Your task to perform on an android device: Open settings on Google Maps Image 0: 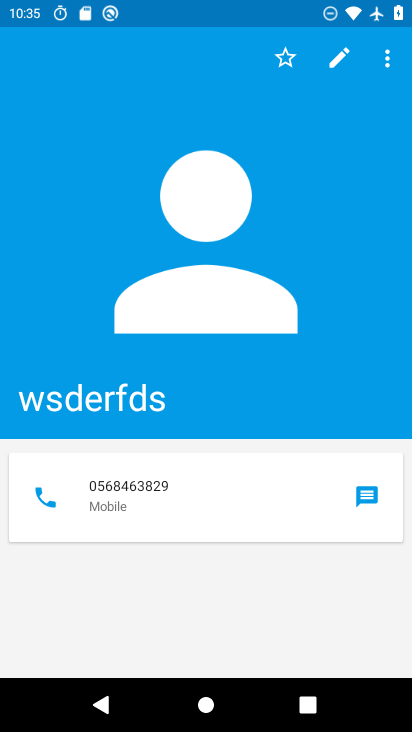
Step 0: press home button
Your task to perform on an android device: Open settings on Google Maps Image 1: 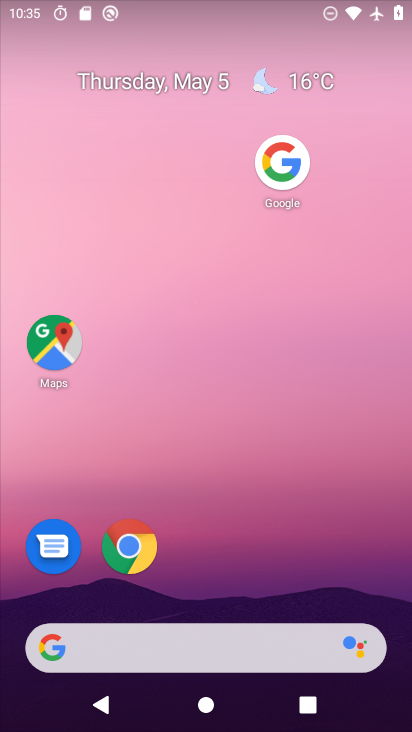
Step 1: drag from (154, 651) to (298, 61)
Your task to perform on an android device: Open settings on Google Maps Image 2: 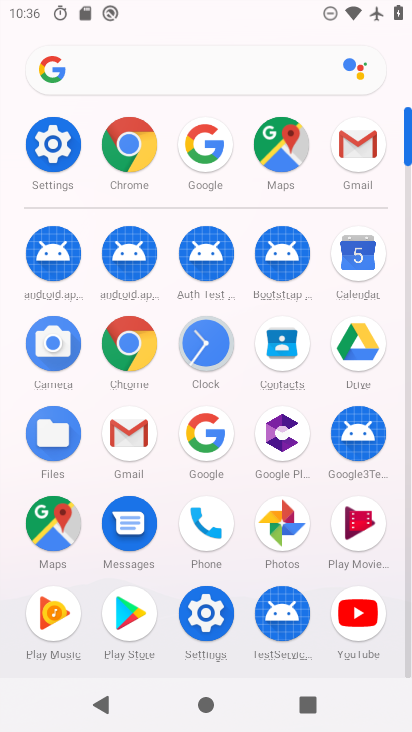
Step 2: click (56, 524)
Your task to perform on an android device: Open settings on Google Maps Image 3: 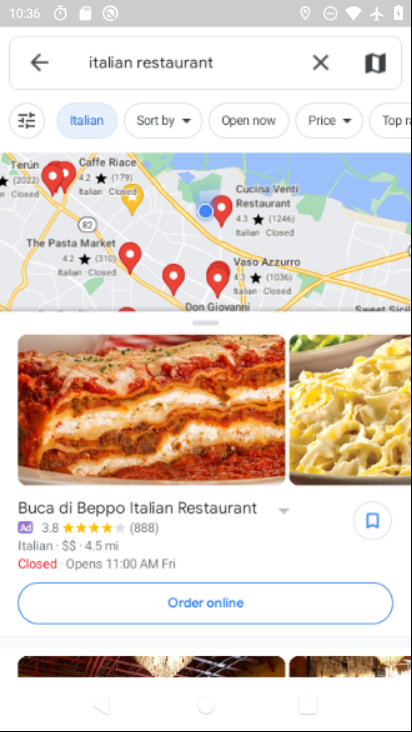
Step 3: click (33, 63)
Your task to perform on an android device: Open settings on Google Maps Image 4: 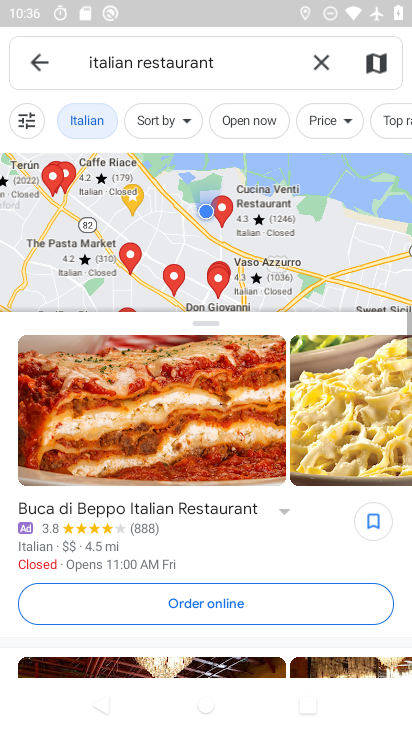
Step 4: click (38, 67)
Your task to perform on an android device: Open settings on Google Maps Image 5: 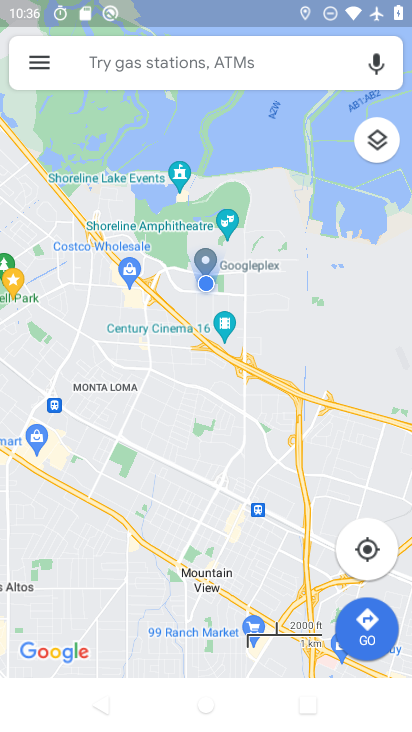
Step 5: click (37, 59)
Your task to perform on an android device: Open settings on Google Maps Image 6: 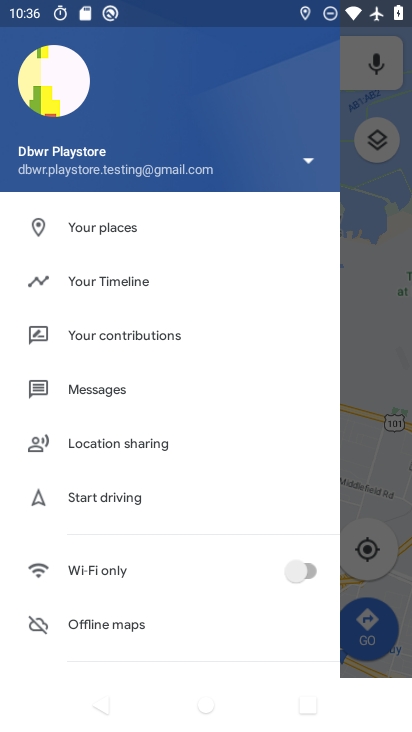
Step 6: drag from (172, 611) to (284, 146)
Your task to perform on an android device: Open settings on Google Maps Image 7: 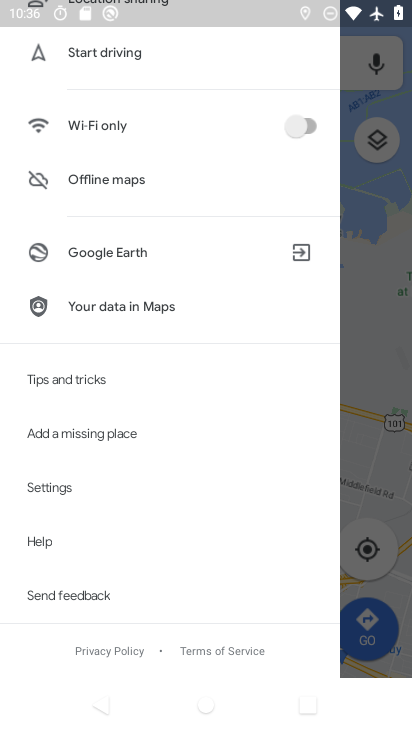
Step 7: click (72, 483)
Your task to perform on an android device: Open settings on Google Maps Image 8: 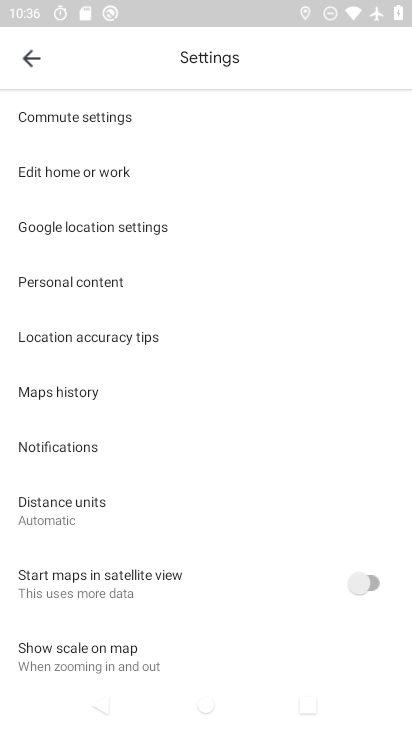
Step 8: task complete